Your task to perform on an android device: Empty the shopping cart on amazon. Search for corsair k70 on amazon, select the first entry, and add it to the cart. Image 0: 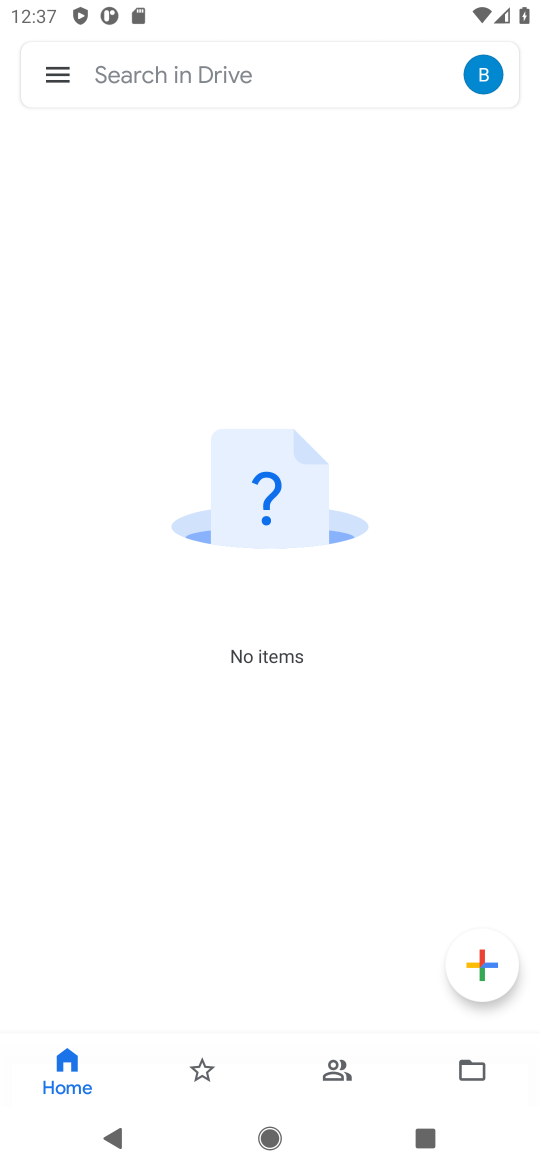
Step 0: press home button
Your task to perform on an android device: Empty the shopping cart on amazon. Search for corsair k70 on amazon, select the first entry, and add it to the cart. Image 1: 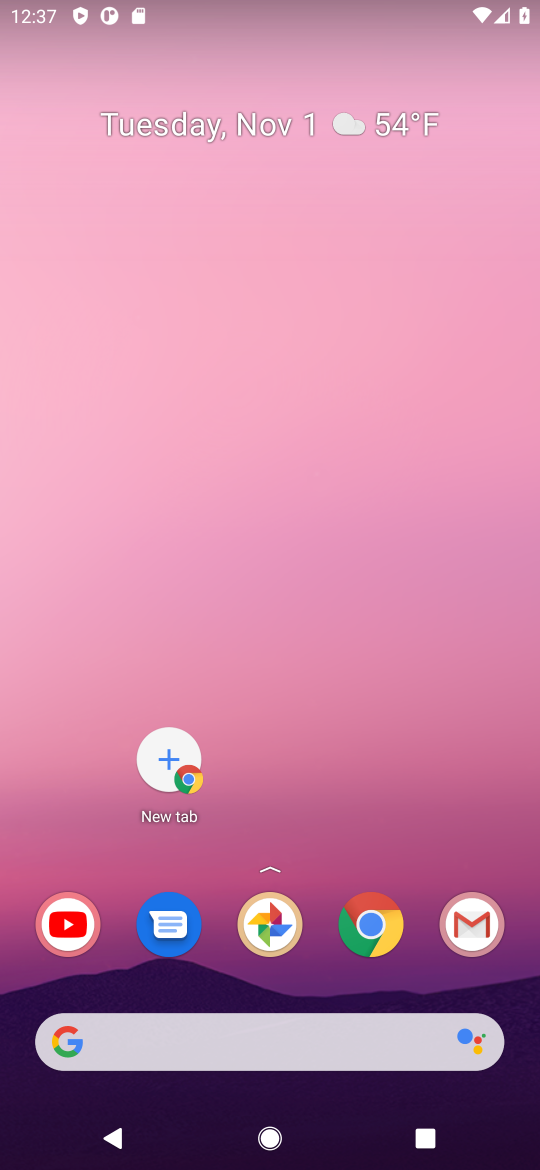
Step 1: click (353, 918)
Your task to perform on an android device: Empty the shopping cart on amazon. Search for corsair k70 on amazon, select the first entry, and add it to the cart. Image 2: 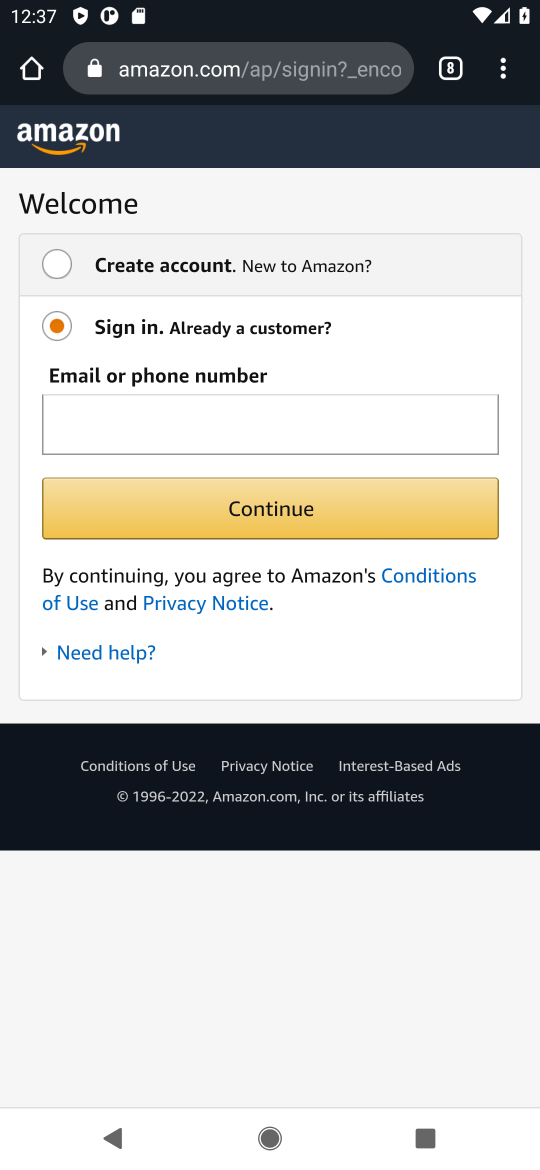
Step 2: press back button
Your task to perform on an android device: Empty the shopping cart on amazon. Search for corsair k70 on amazon, select the first entry, and add it to the cart. Image 3: 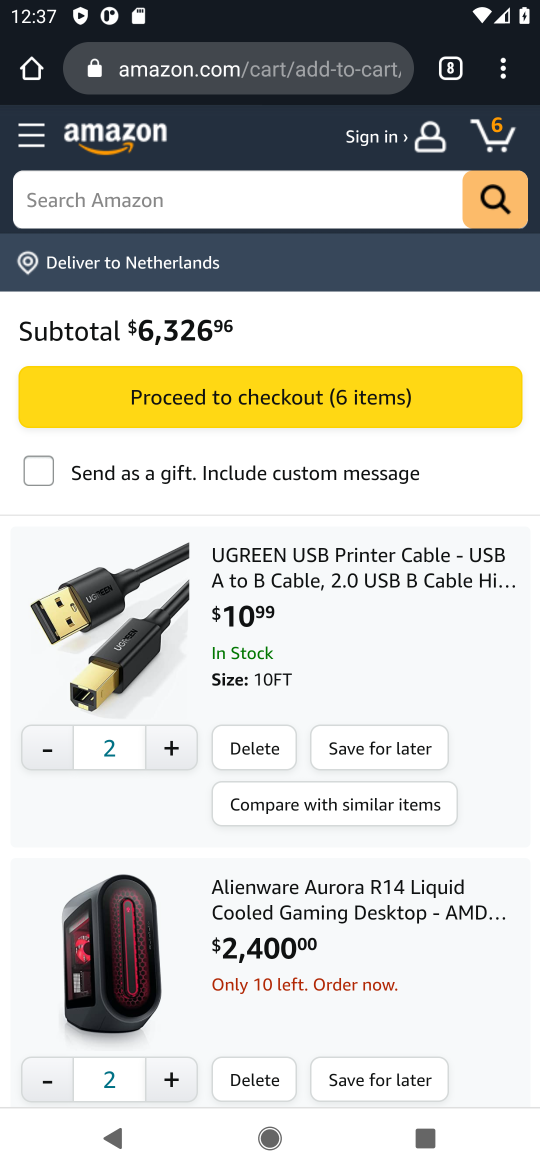
Step 3: click (180, 200)
Your task to perform on an android device: Empty the shopping cart on amazon. Search for corsair k70 on amazon, select the first entry, and add it to the cart. Image 4: 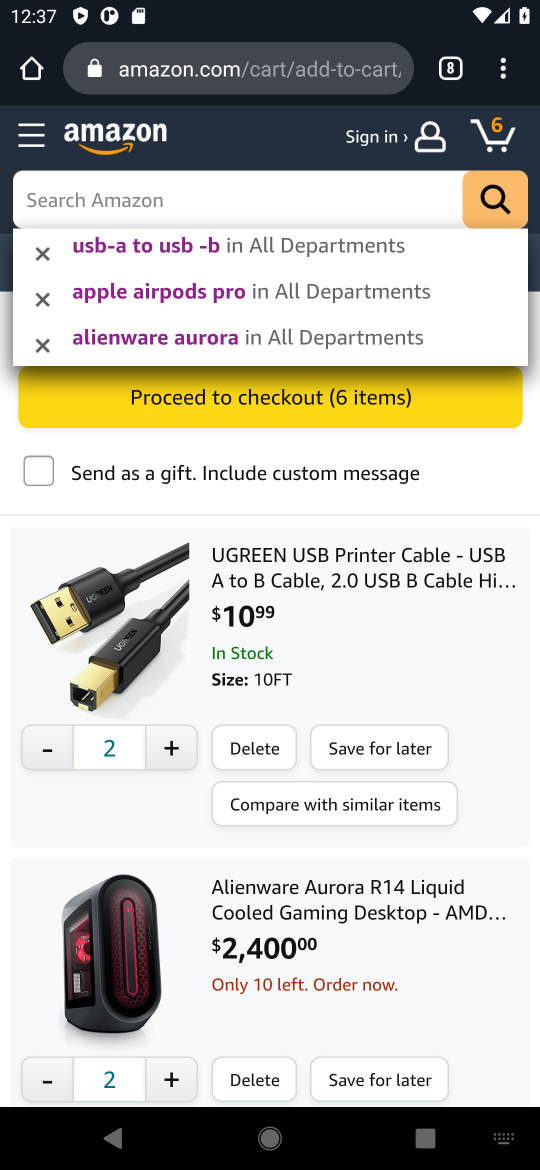
Step 4: type "corssair k70"
Your task to perform on an android device: Empty the shopping cart on amazon. Search for corsair k70 on amazon, select the first entry, and add it to the cart. Image 5: 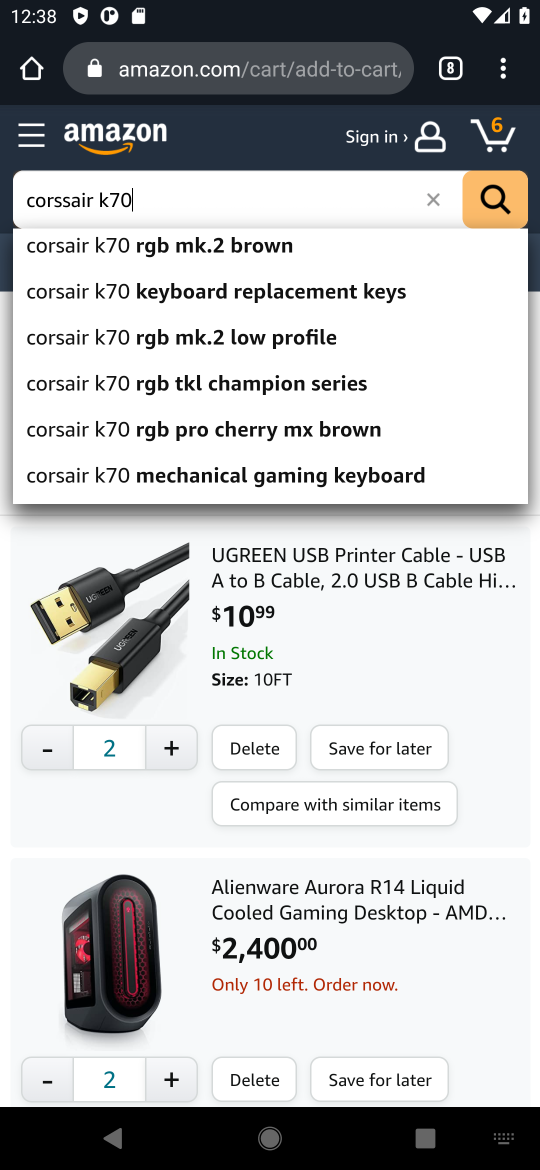
Step 5: click (155, 243)
Your task to perform on an android device: Empty the shopping cart on amazon. Search for corsair k70 on amazon, select the first entry, and add it to the cart. Image 6: 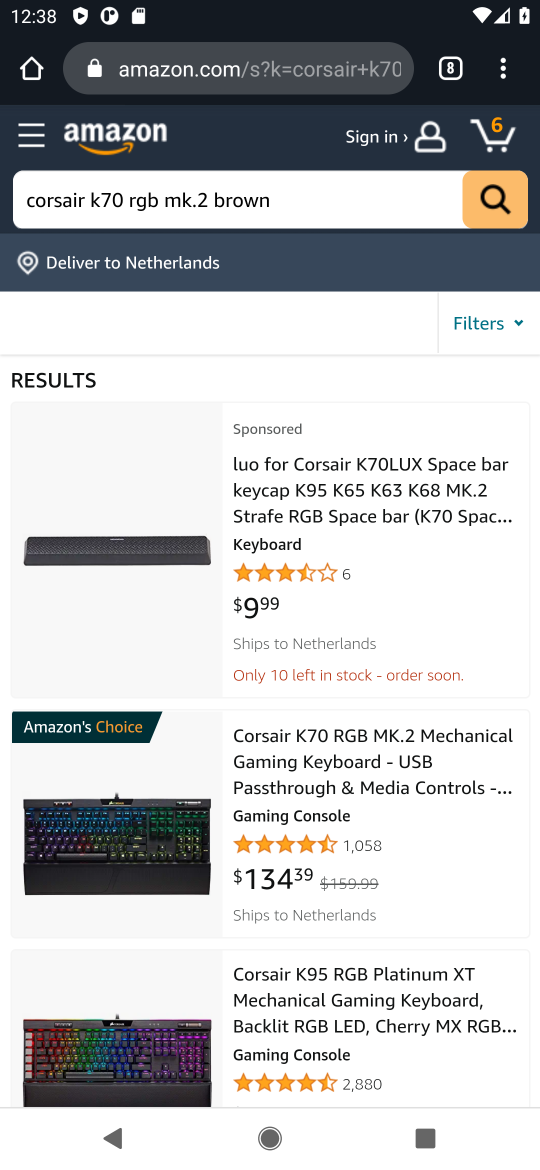
Step 6: drag from (161, 883) to (153, 583)
Your task to perform on an android device: Empty the shopping cart on amazon. Search for corsair k70 on amazon, select the first entry, and add it to the cart. Image 7: 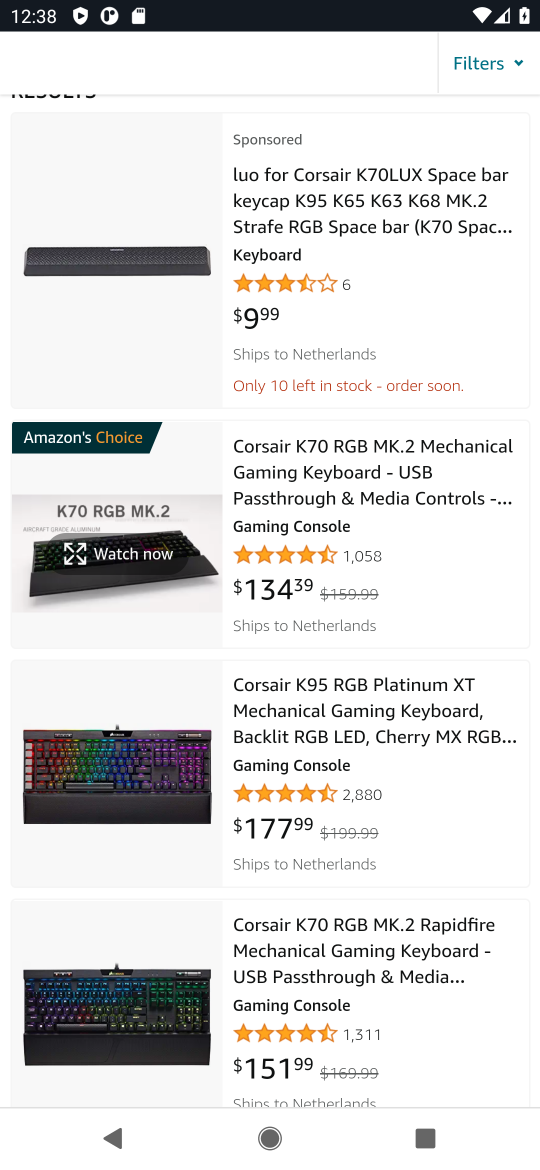
Step 7: click (115, 532)
Your task to perform on an android device: Empty the shopping cart on amazon. Search for corsair k70 on amazon, select the first entry, and add it to the cart. Image 8: 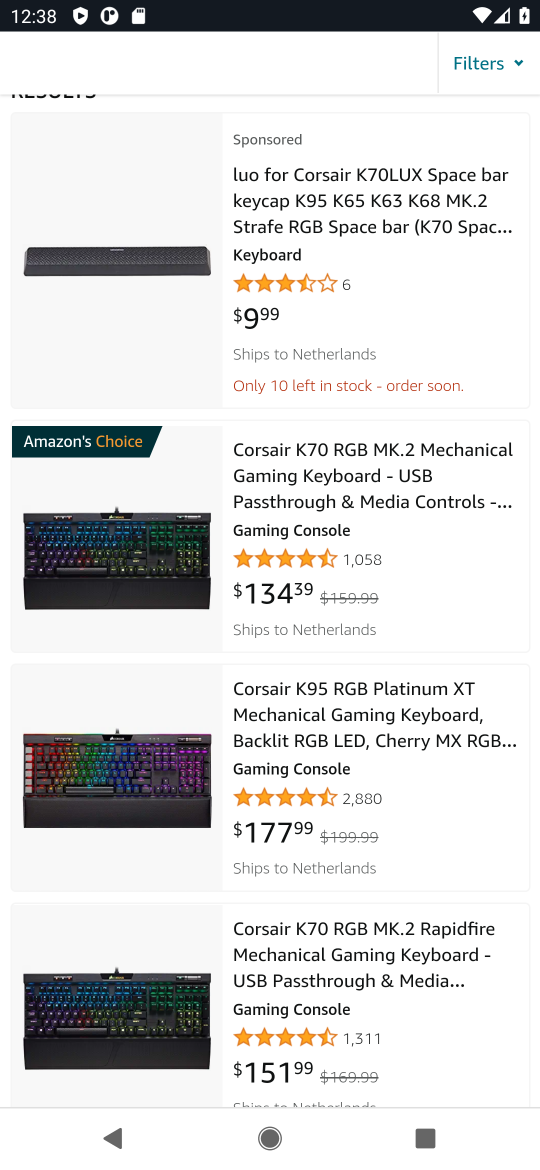
Step 8: click (375, 456)
Your task to perform on an android device: Empty the shopping cart on amazon. Search for corsair k70 on amazon, select the first entry, and add it to the cart. Image 9: 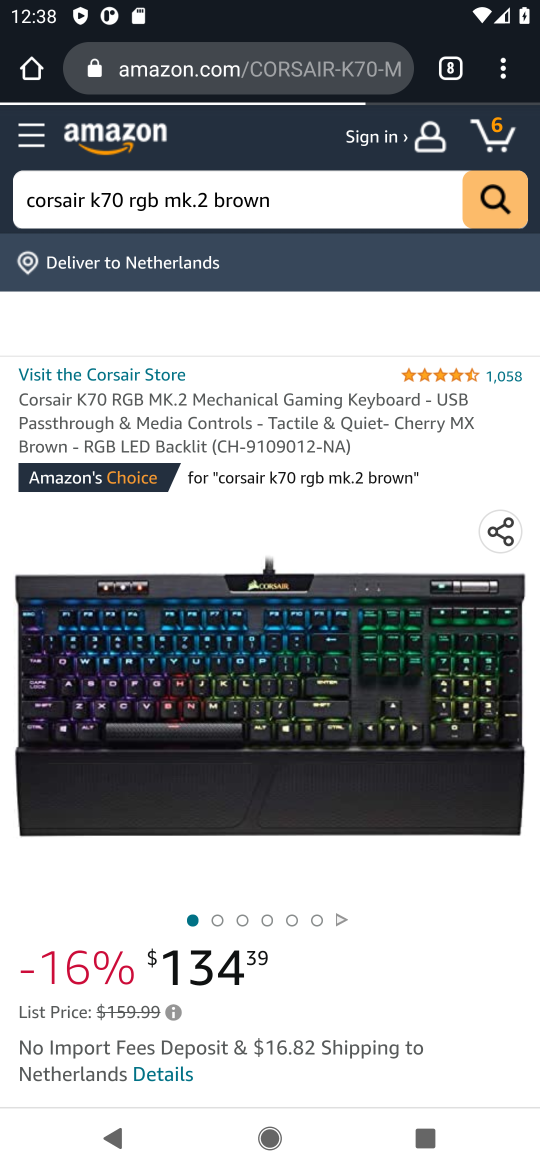
Step 9: drag from (324, 898) to (346, 493)
Your task to perform on an android device: Empty the shopping cart on amazon. Search for corsair k70 on amazon, select the first entry, and add it to the cart. Image 10: 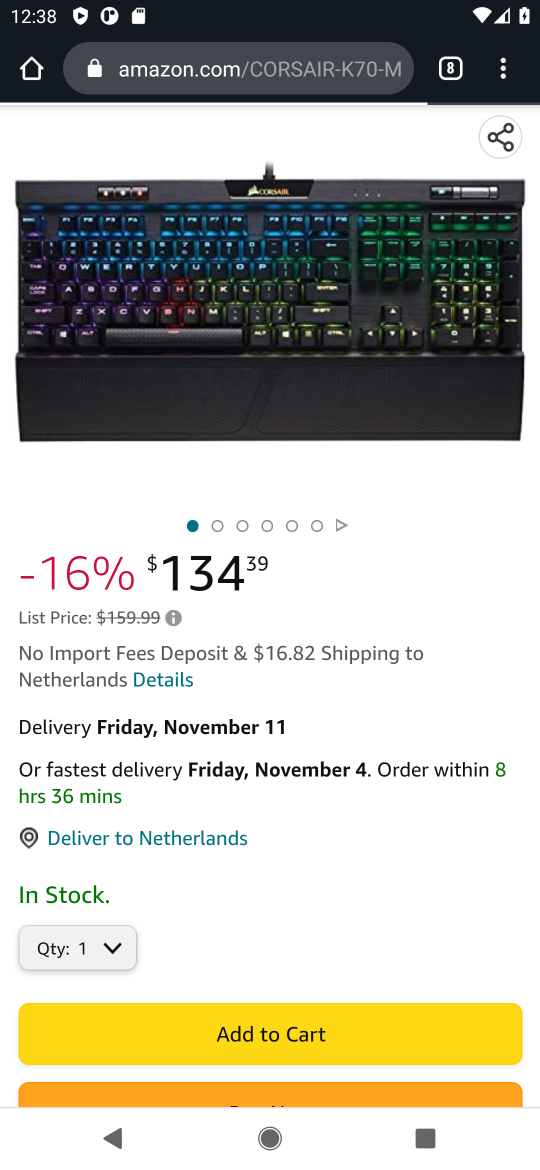
Step 10: drag from (309, 823) to (320, 740)
Your task to perform on an android device: Empty the shopping cart on amazon. Search for corsair k70 on amazon, select the first entry, and add it to the cart. Image 11: 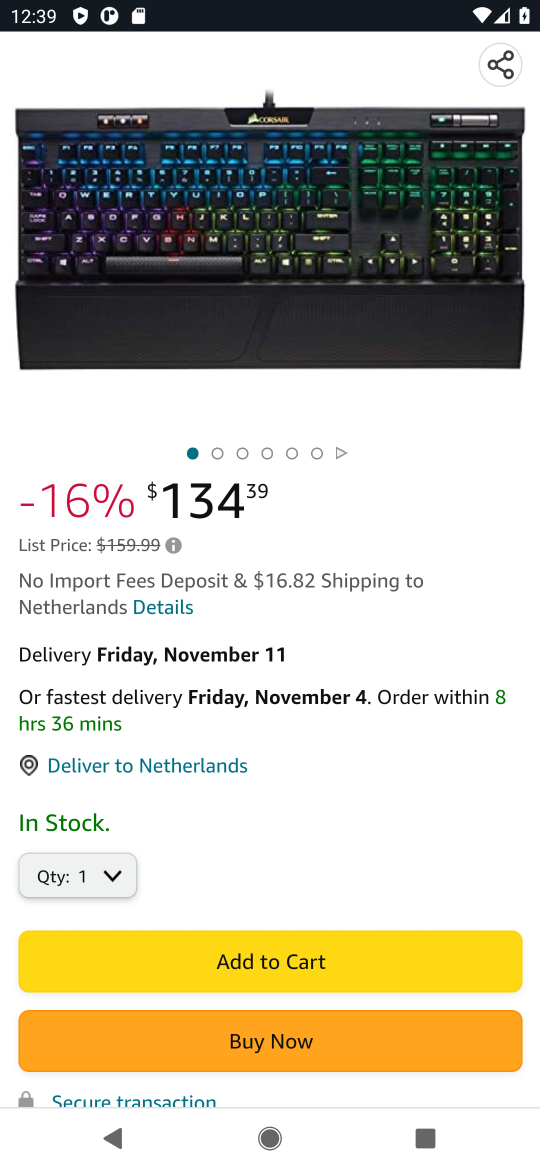
Step 11: click (325, 959)
Your task to perform on an android device: Empty the shopping cart on amazon. Search for corsair k70 on amazon, select the first entry, and add it to the cart. Image 12: 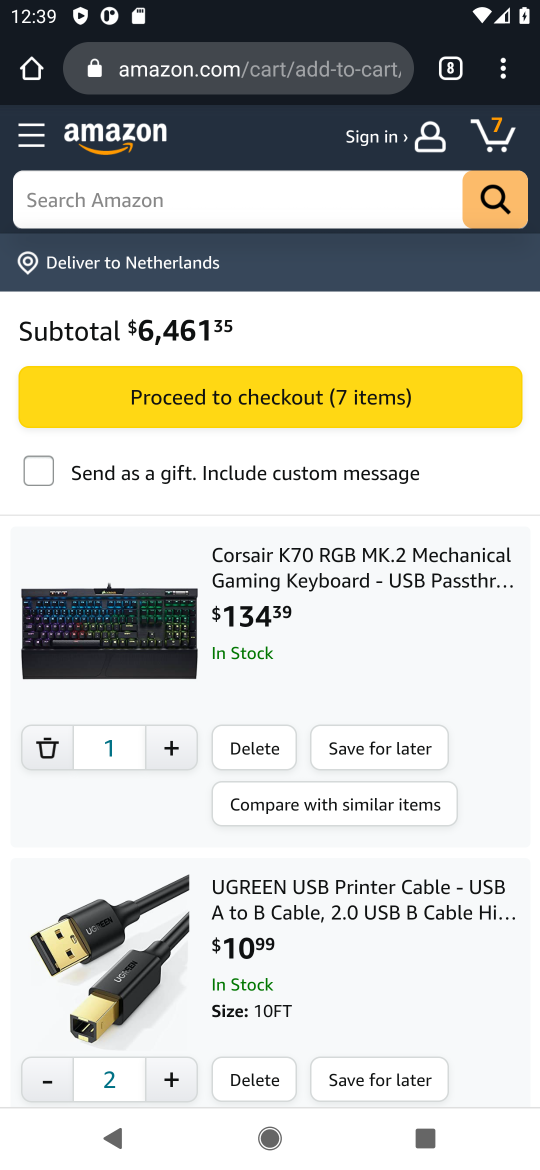
Step 12: click (241, 402)
Your task to perform on an android device: Empty the shopping cart on amazon. Search for corsair k70 on amazon, select the first entry, and add it to the cart. Image 13: 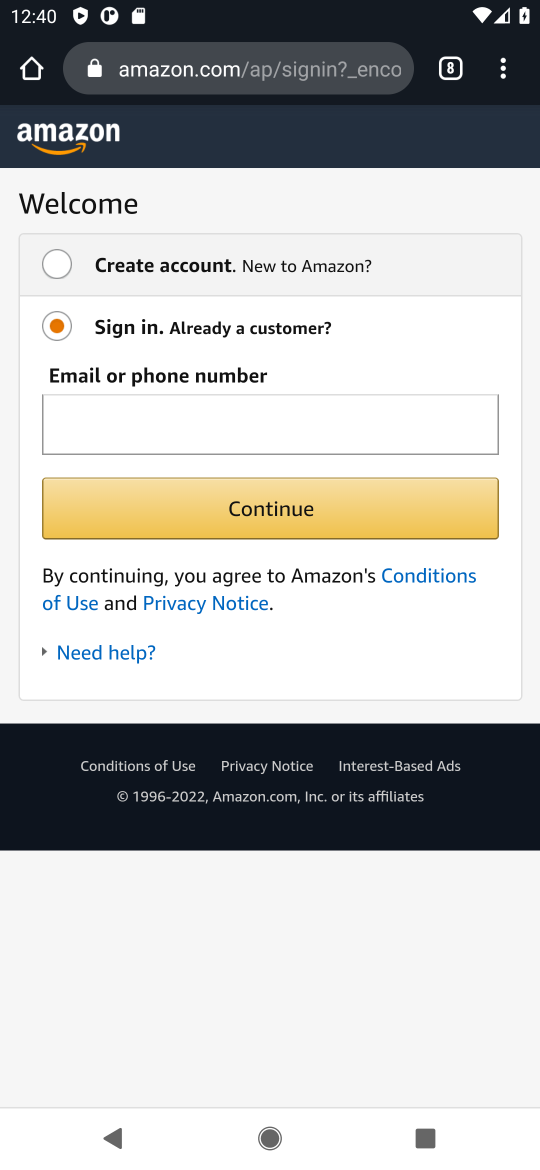
Step 13: task complete